Your task to perform on an android device: choose inbox layout in the gmail app Image 0: 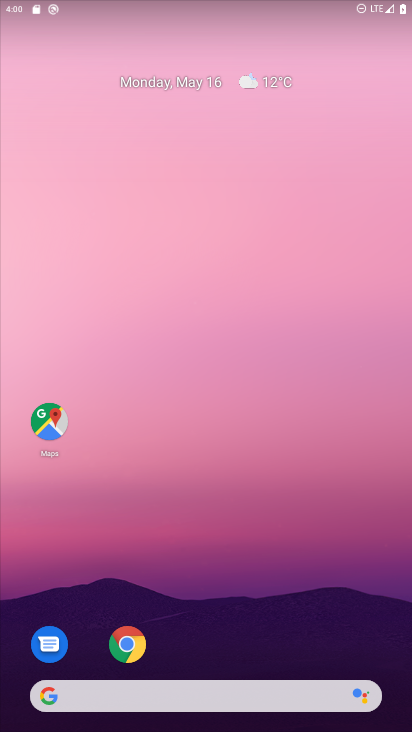
Step 0: drag from (259, 582) to (229, 77)
Your task to perform on an android device: choose inbox layout in the gmail app Image 1: 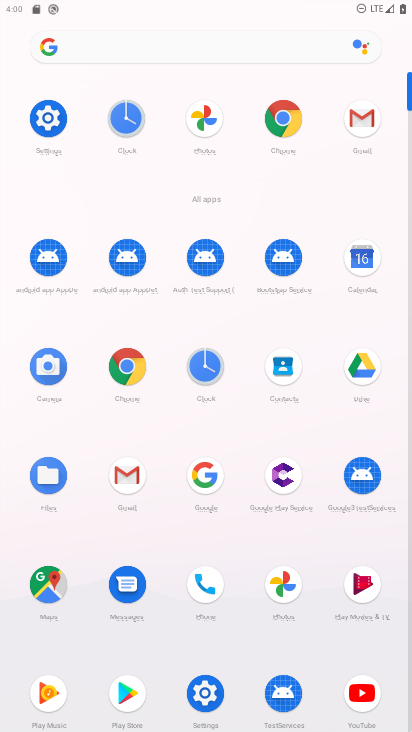
Step 1: click (125, 480)
Your task to perform on an android device: choose inbox layout in the gmail app Image 2: 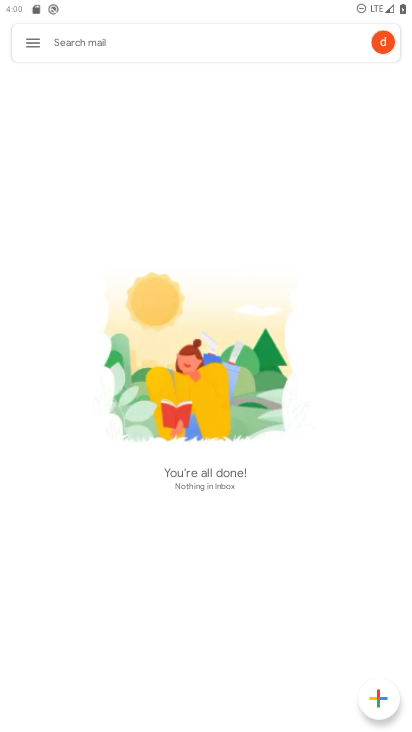
Step 2: click (34, 33)
Your task to perform on an android device: choose inbox layout in the gmail app Image 3: 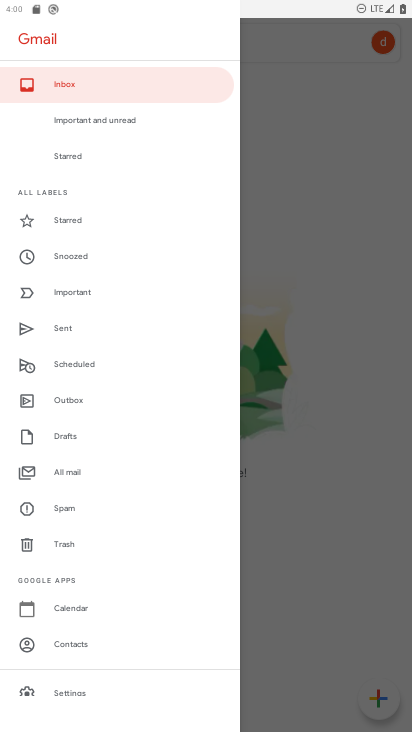
Step 3: click (73, 691)
Your task to perform on an android device: choose inbox layout in the gmail app Image 4: 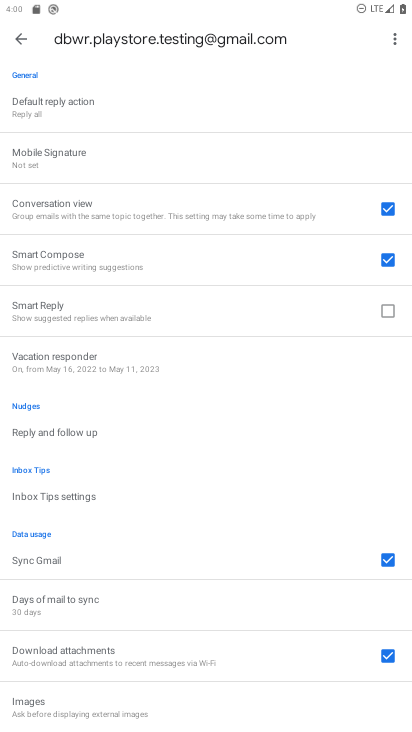
Step 4: drag from (149, 155) to (123, 573)
Your task to perform on an android device: choose inbox layout in the gmail app Image 5: 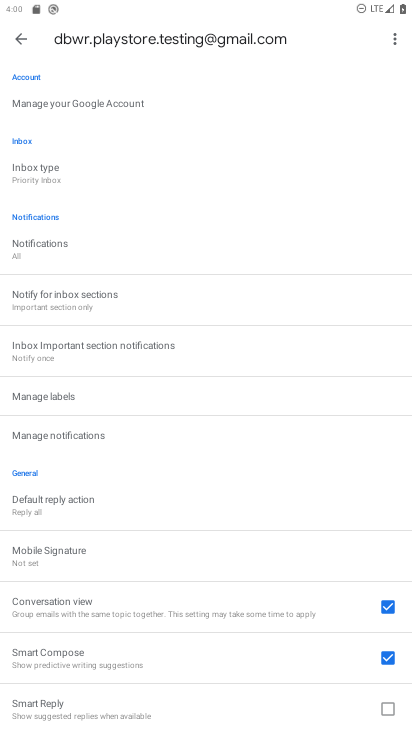
Step 5: drag from (109, 193) to (108, 556)
Your task to perform on an android device: choose inbox layout in the gmail app Image 6: 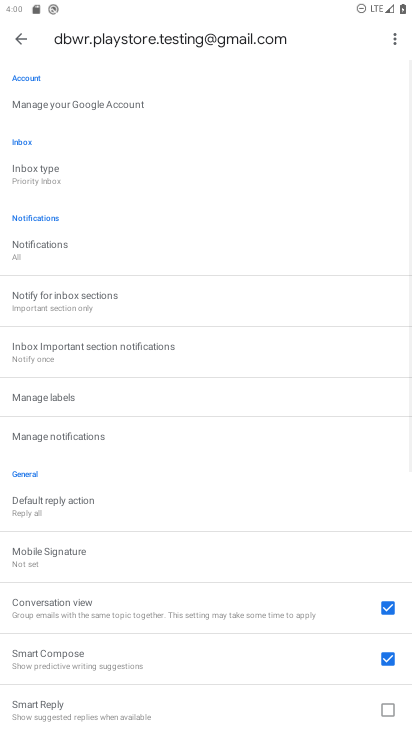
Step 6: click (91, 178)
Your task to perform on an android device: choose inbox layout in the gmail app Image 7: 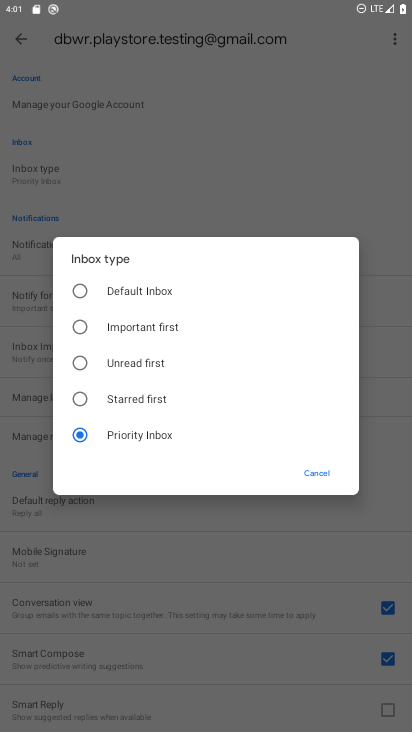
Step 7: click (149, 291)
Your task to perform on an android device: choose inbox layout in the gmail app Image 8: 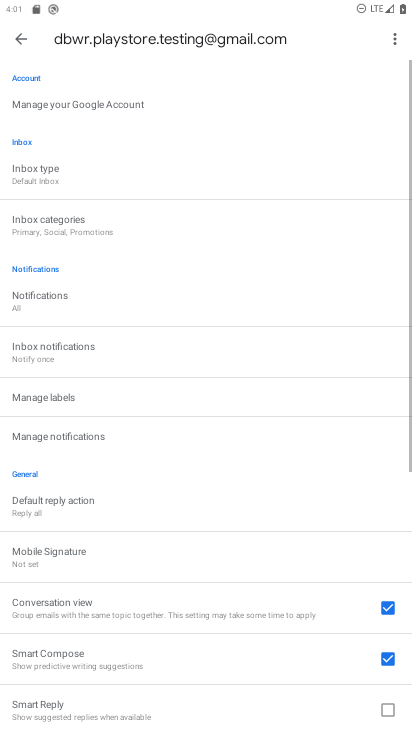
Step 8: task complete